Your task to perform on an android device: Search for Mexican restaurants on Maps Image 0: 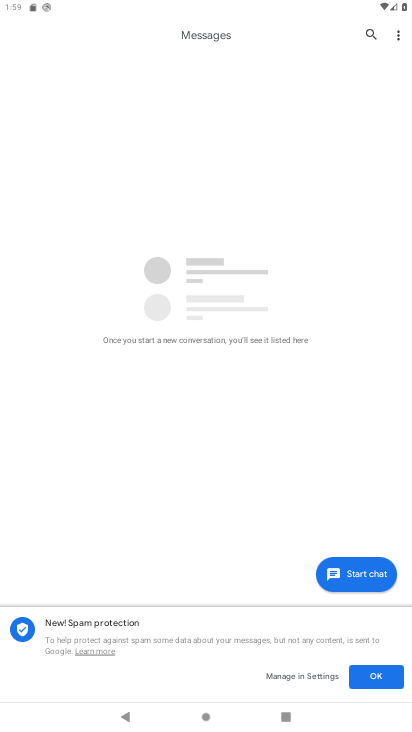
Step 0: press home button
Your task to perform on an android device: Search for Mexican restaurants on Maps Image 1: 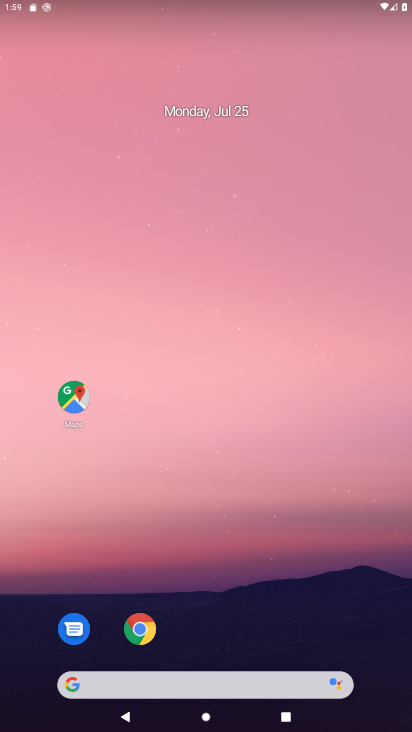
Step 1: drag from (367, 510) to (409, 120)
Your task to perform on an android device: Search for Mexican restaurants on Maps Image 2: 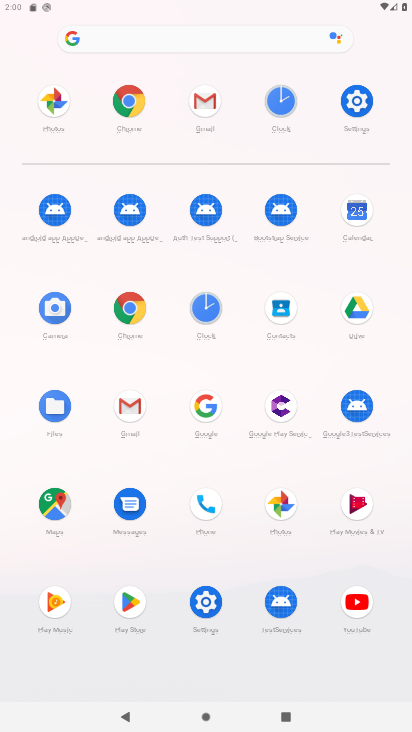
Step 2: click (52, 498)
Your task to perform on an android device: Search for Mexican restaurants on Maps Image 3: 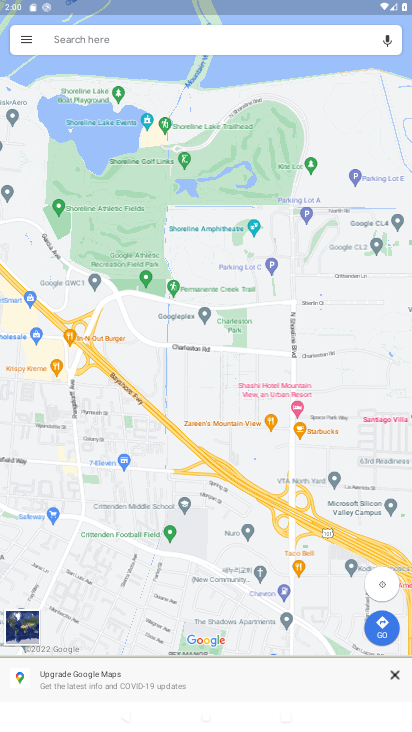
Step 3: click (174, 46)
Your task to perform on an android device: Search for Mexican restaurants on Maps Image 4: 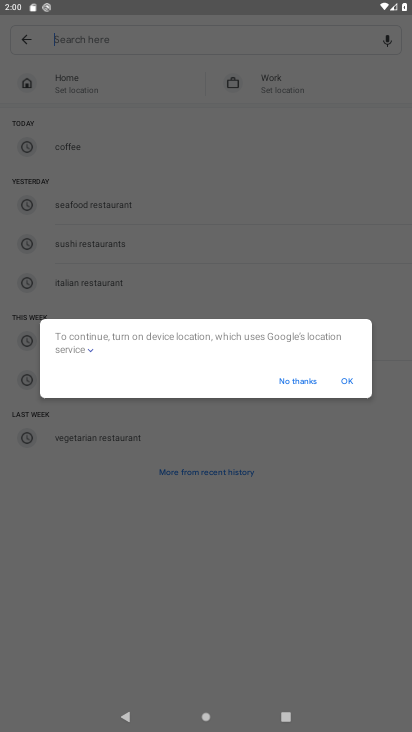
Step 4: click (302, 385)
Your task to perform on an android device: Search for Mexican restaurants on Maps Image 5: 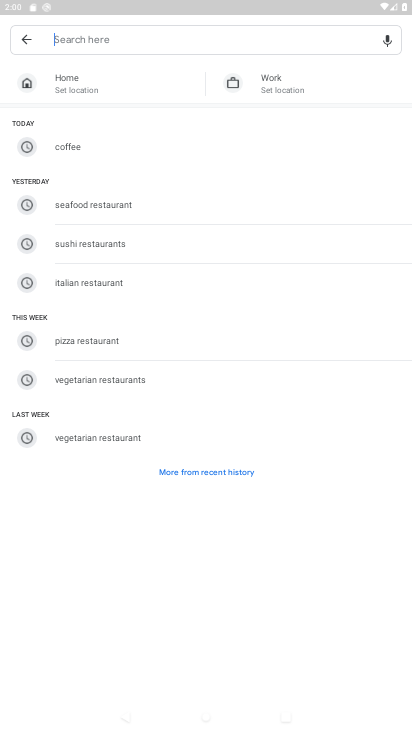
Step 5: type " Mexican restaurants"
Your task to perform on an android device: Search for Mexican restaurants on Maps Image 6: 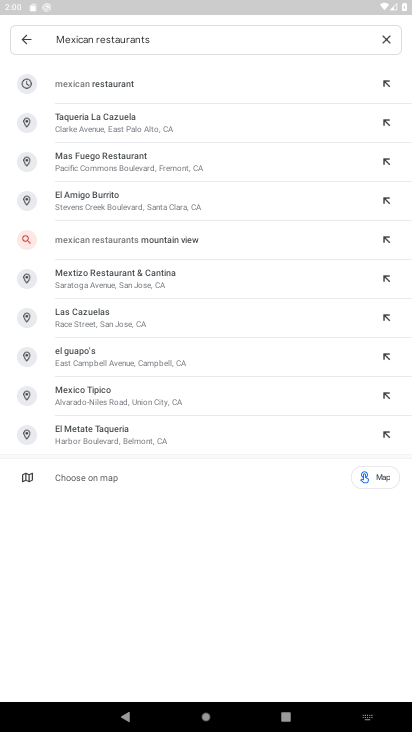
Step 6: click (126, 83)
Your task to perform on an android device: Search for Mexican restaurants on Maps Image 7: 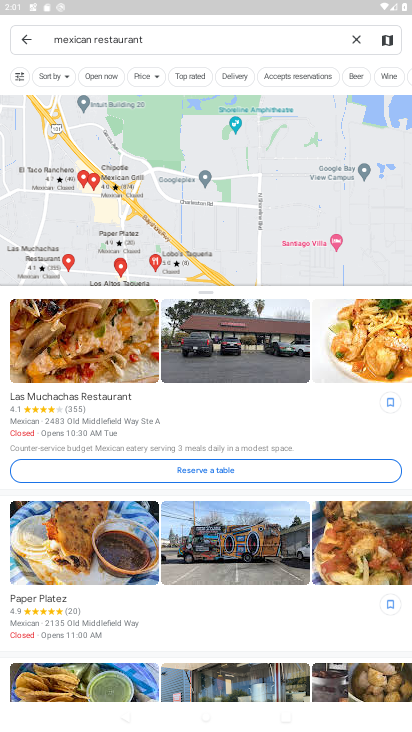
Step 7: task complete